Your task to perform on an android device: turn on data saver in the chrome app Image 0: 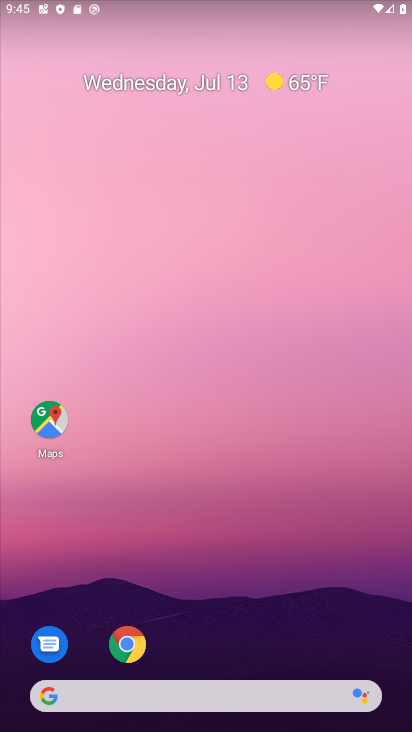
Step 0: drag from (249, 626) to (262, 33)
Your task to perform on an android device: turn on data saver in the chrome app Image 1: 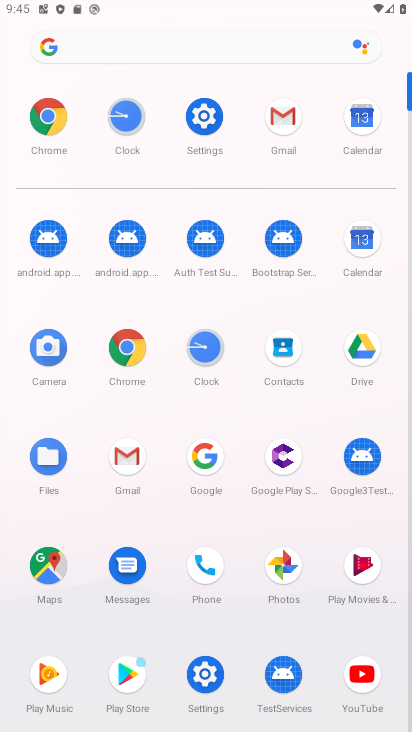
Step 1: click (51, 124)
Your task to perform on an android device: turn on data saver in the chrome app Image 2: 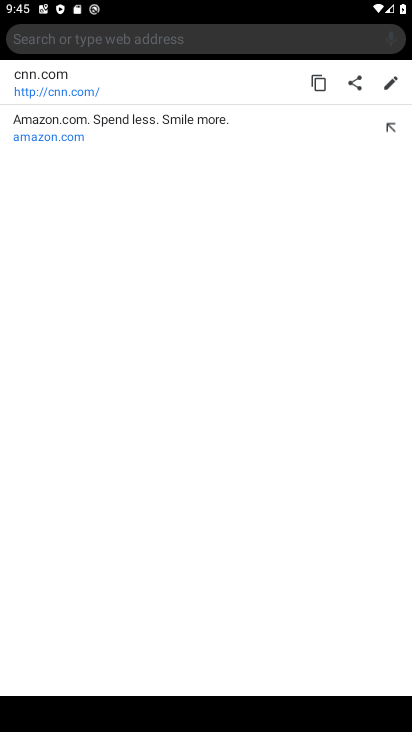
Step 2: press home button
Your task to perform on an android device: turn on data saver in the chrome app Image 3: 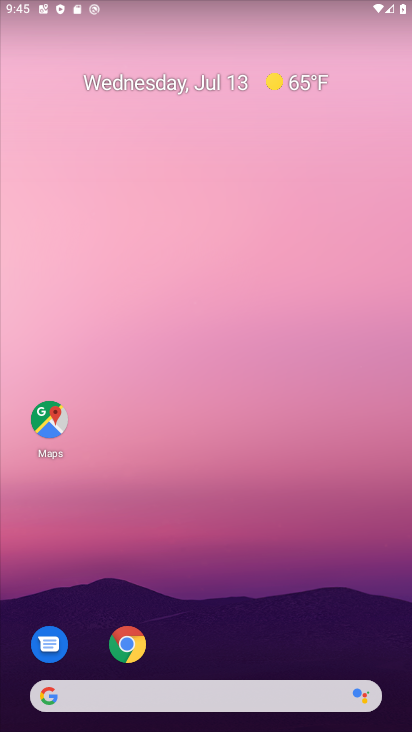
Step 3: drag from (342, 614) to (390, 159)
Your task to perform on an android device: turn on data saver in the chrome app Image 4: 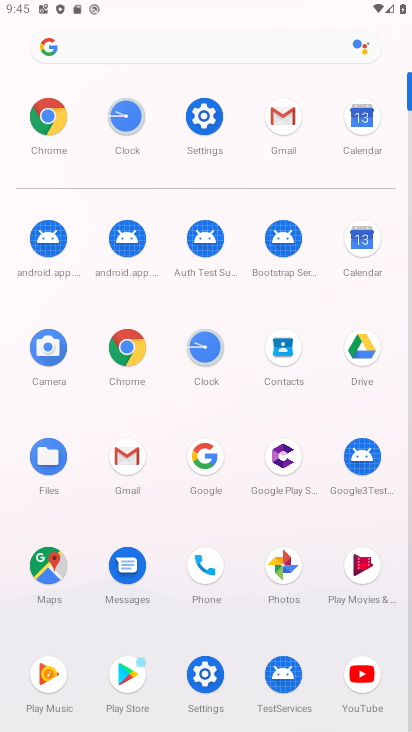
Step 4: click (125, 339)
Your task to perform on an android device: turn on data saver in the chrome app Image 5: 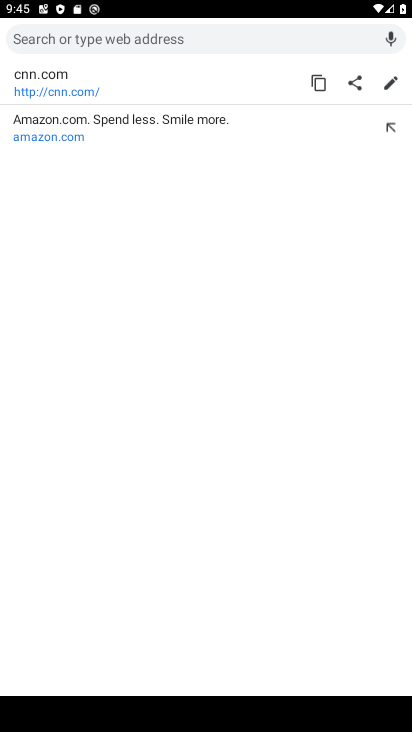
Step 5: press back button
Your task to perform on an android device: turn on data saver in the chrome app Image 6: 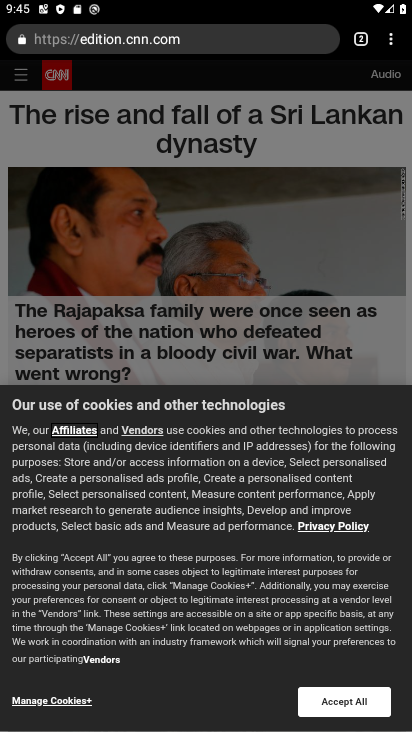
Step 6: drag from (396, 43) to (259, 428)
Your task to perform on an android device: turn on data saver in the chrome app Image 7: 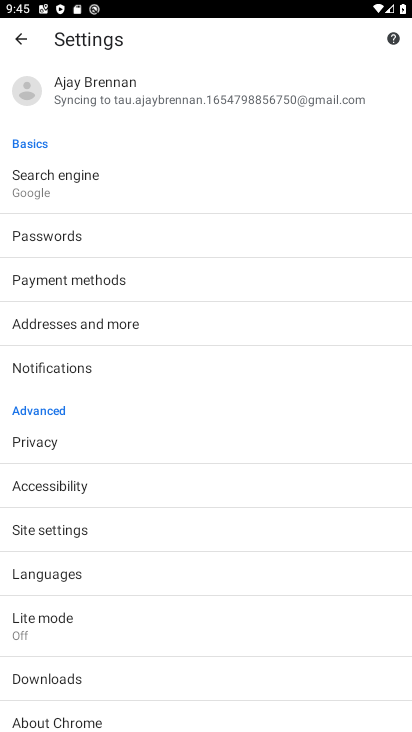
Step 7: click (90, 614)
Your task to perform on an android device: turn on data saver in the chrome app Image 8: 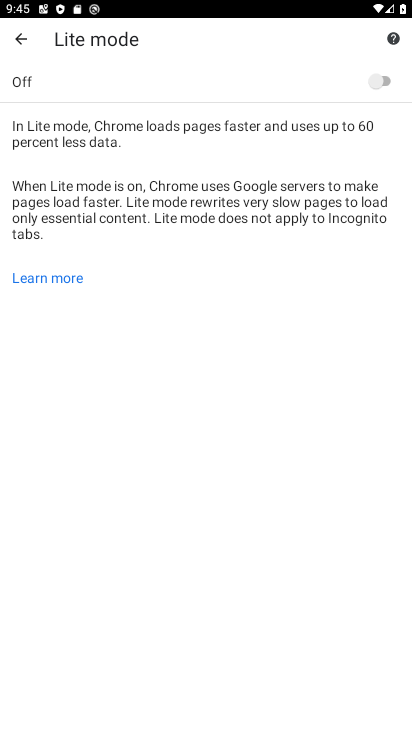
Step 8: click (379, 77)
Your task to perform on an android device: turn on data saver in the chrome app Image 9: 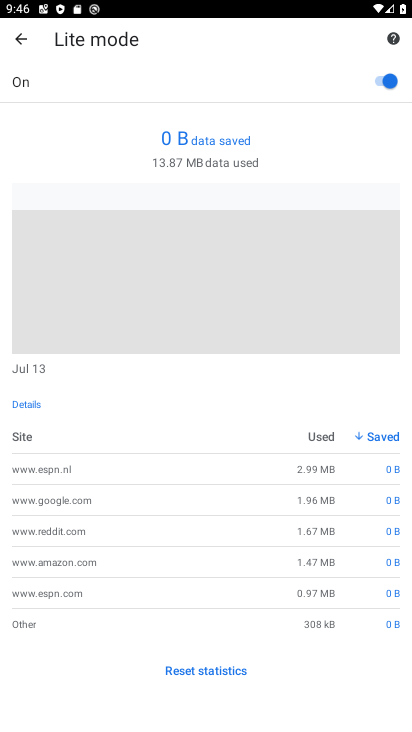
Step 9: task complete